Your task to perform on an android device: Open location settings Image 0: 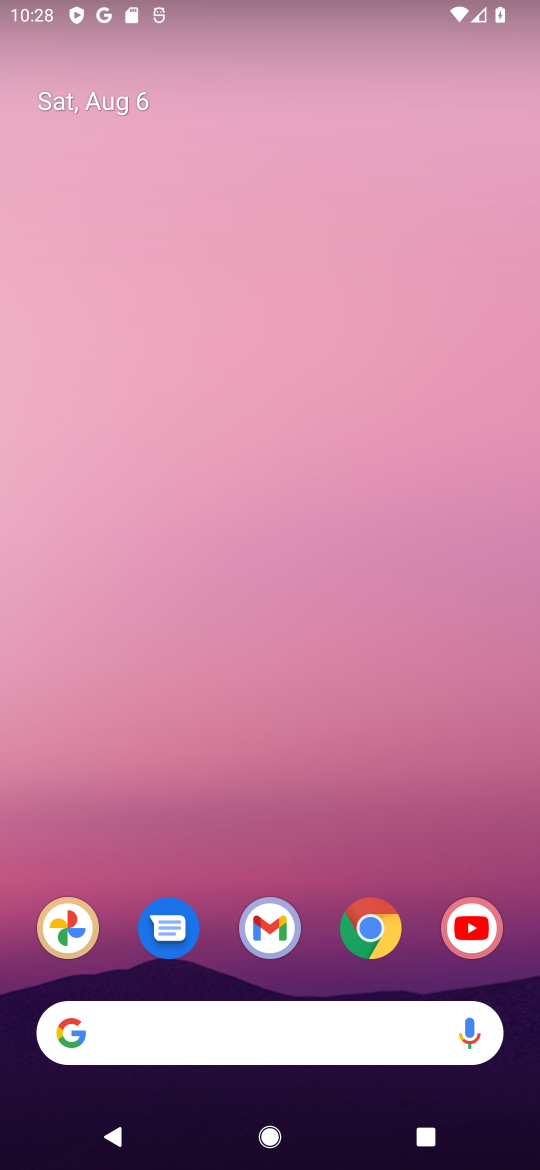
Step 0: drag from (288, 856) to (244, 281)
Your task to perform on an android device: Open location settings Image 1: 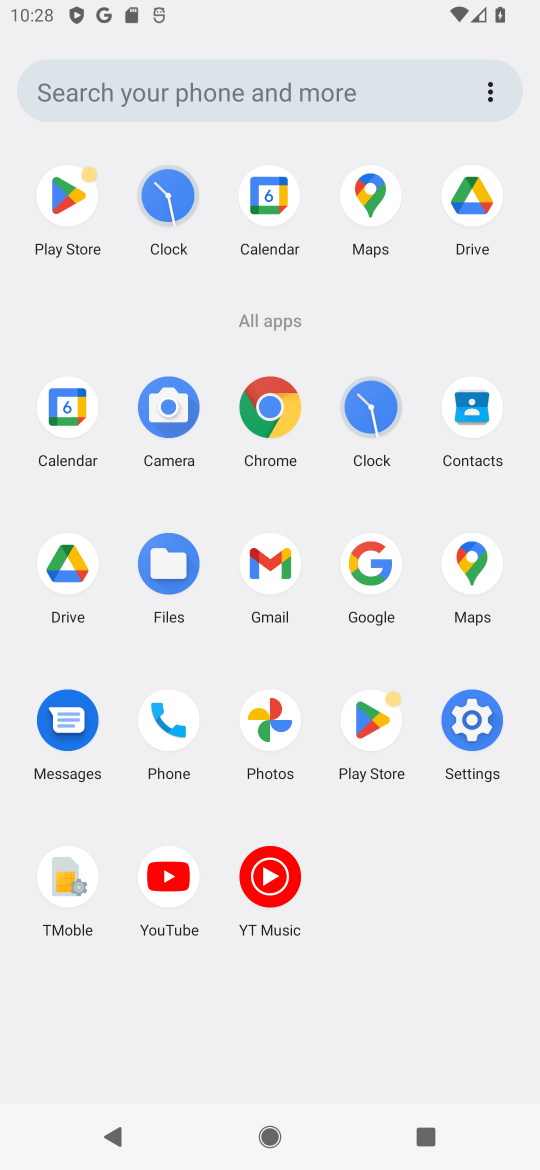
Step 1: click (462, 727)
Your task to perform on an android device: Open location settings Image 2: 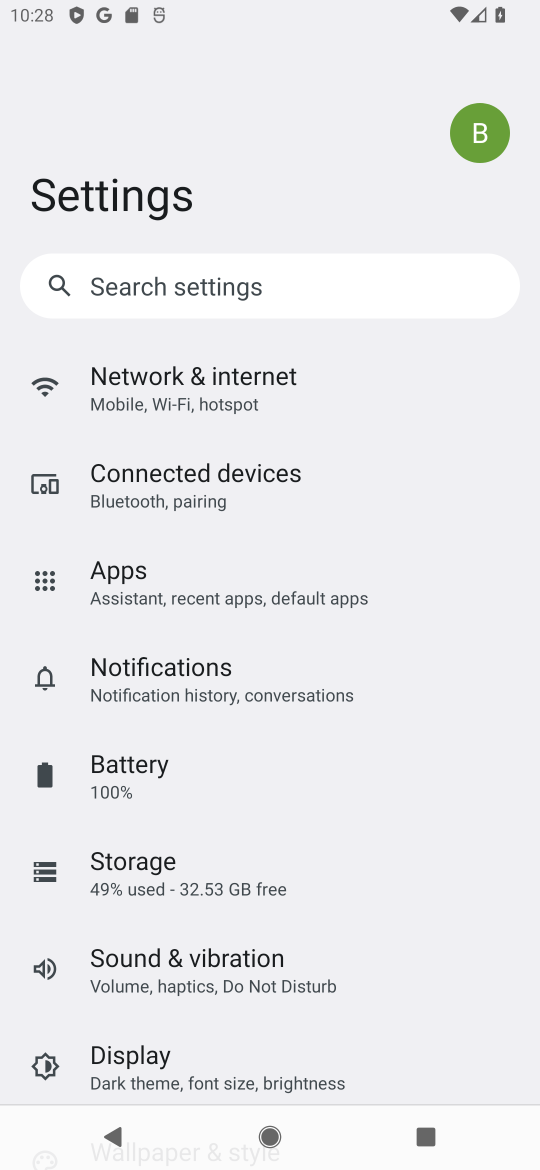
Step 2: drag from (385, 895) to (368, 503)
Your task to perform on an android device: Open location settings Image 3: 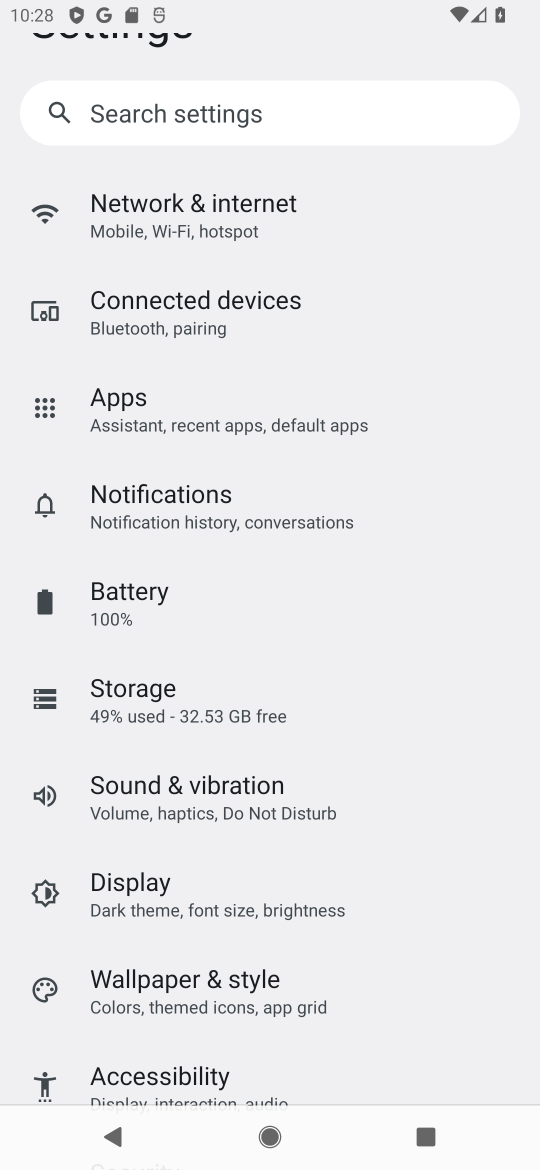
Step 3: drag from (427, 942) to (400, 759)
Your task to perform on an android device: Open location settings Image 4: 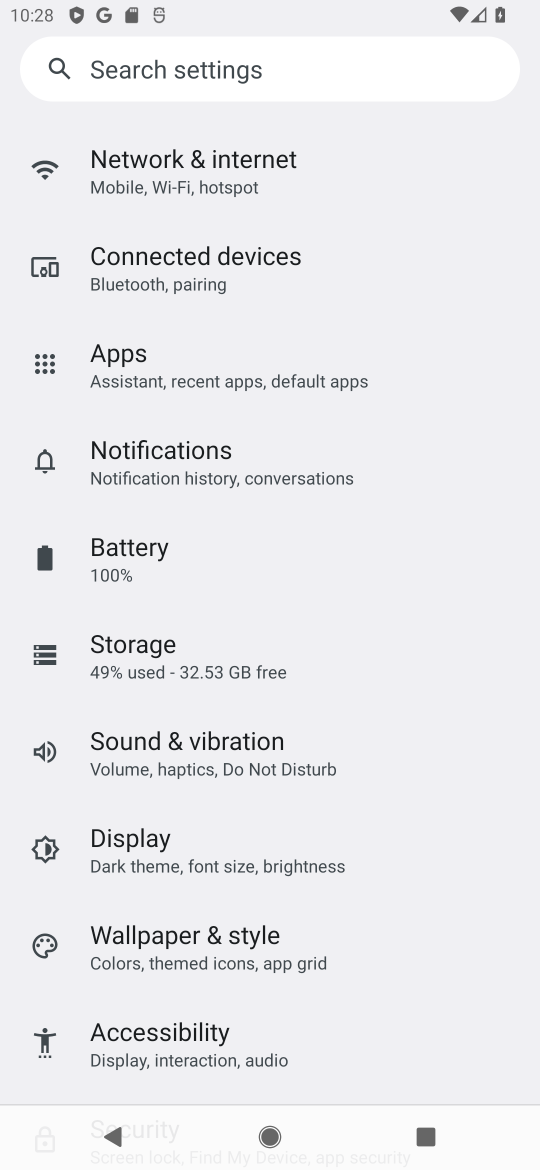
Step 4: drag from (400, 759) to (307, 133)
Your task to perform on an android device: Open location settings Image 5: 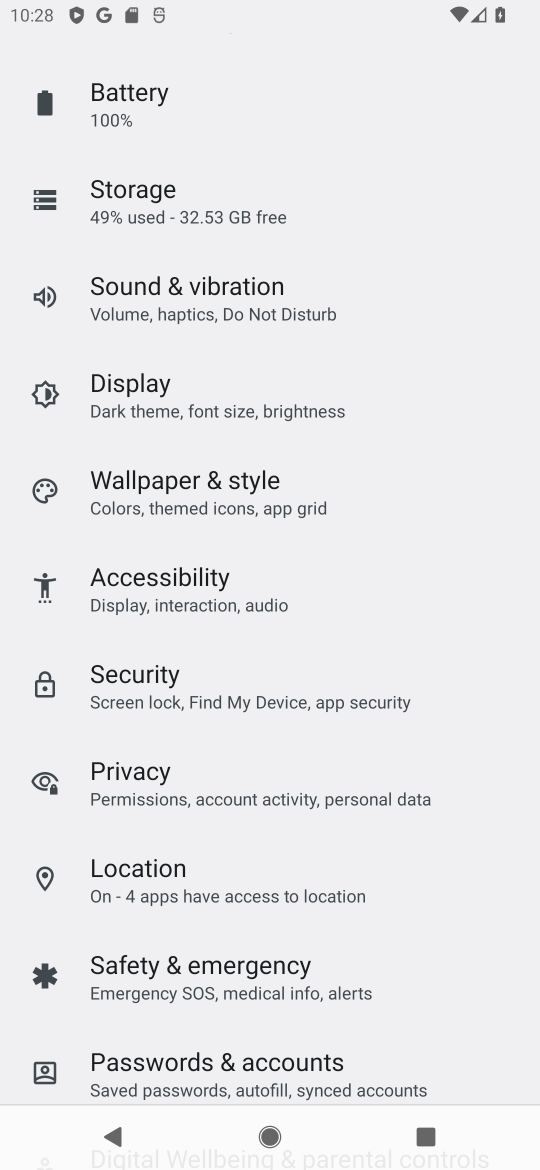
Step 5: click (170, 909)
Your task to perform on an android device: Open location settings Image 6: 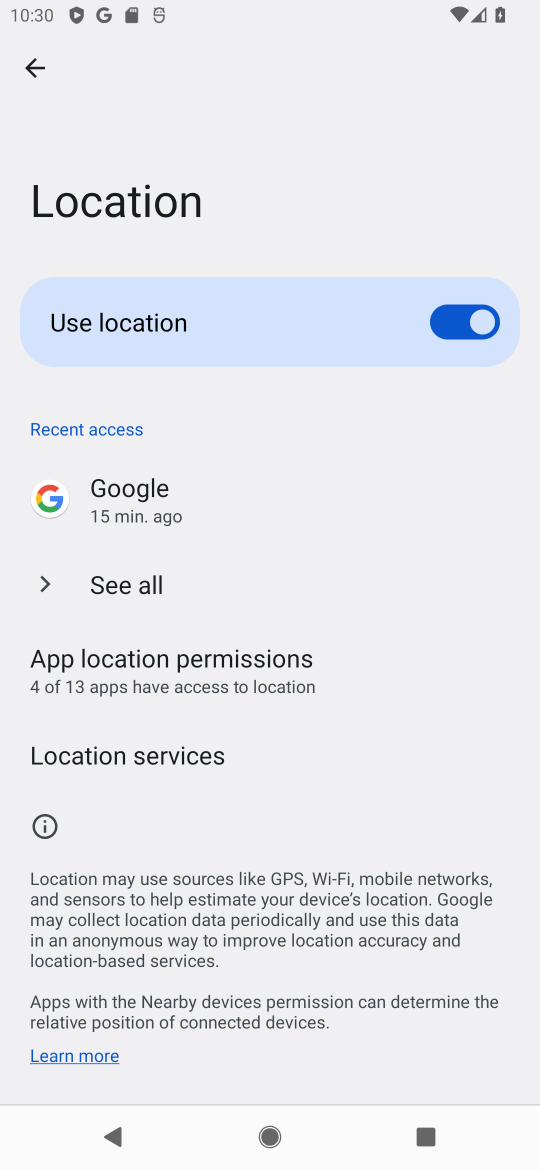
Step 6: task complete